Your task to perform on an android device: turn off picture-in-picture Image 0: 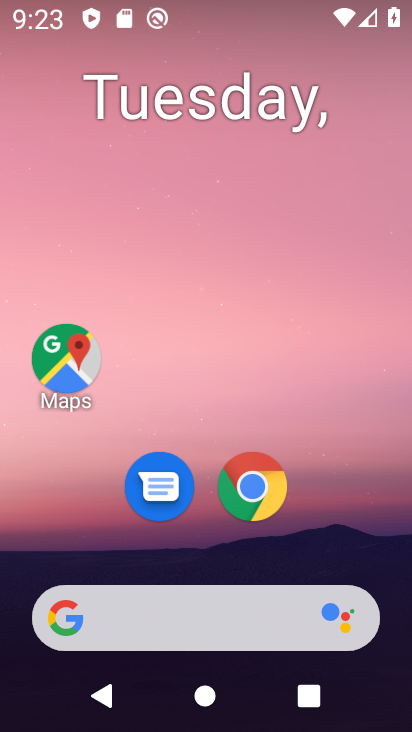
Step 0: press home button
Your task to perform on an android device: turn off picture-in-picture Image 1: 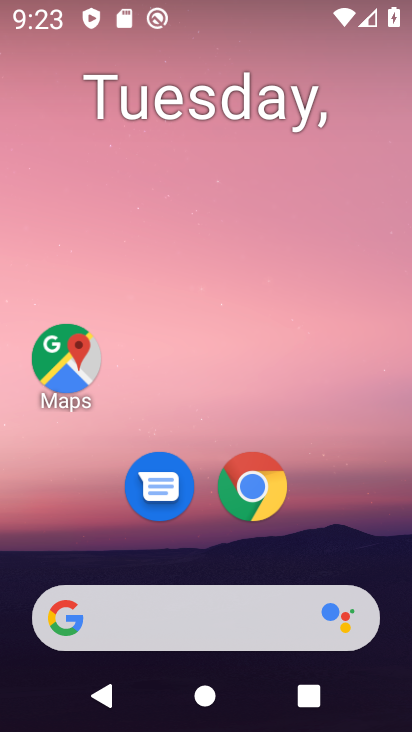
Step 1: drag from (365, 535) to (362, 164)
Your task to perform on an android device: turn off picture-in-picture Image 2: 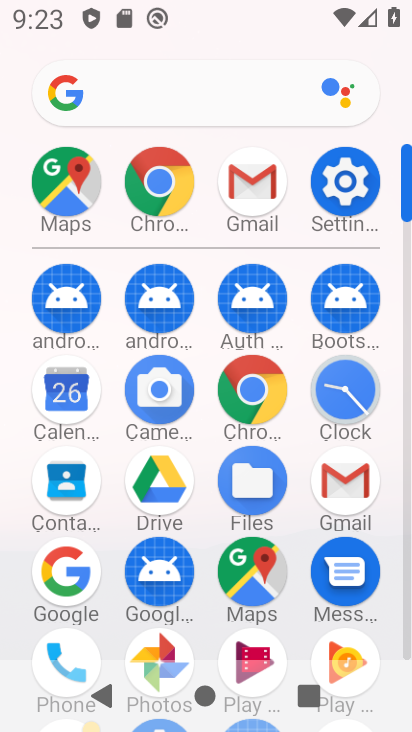
Step 2: click (335, 183)
Your task to perform on an android device: turn off picture-in-picture Image 3: 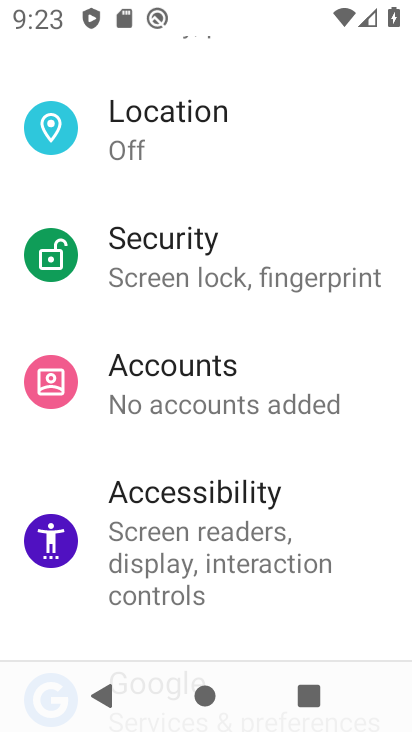
Step 3: drag from (335, 183) to (333, 217)
Your task to perform on an android device: turn off picture-in-picture Image 4: 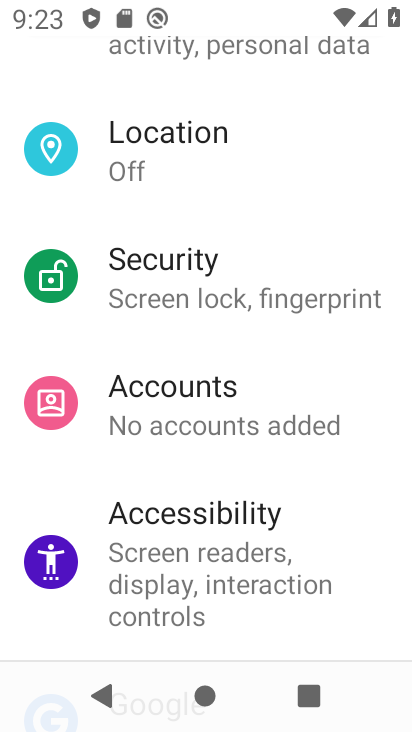
Step 4: drag from (324, 162) to (319, 208)
Your task to perform on an android device: turn off picture-in-picture Image 5: 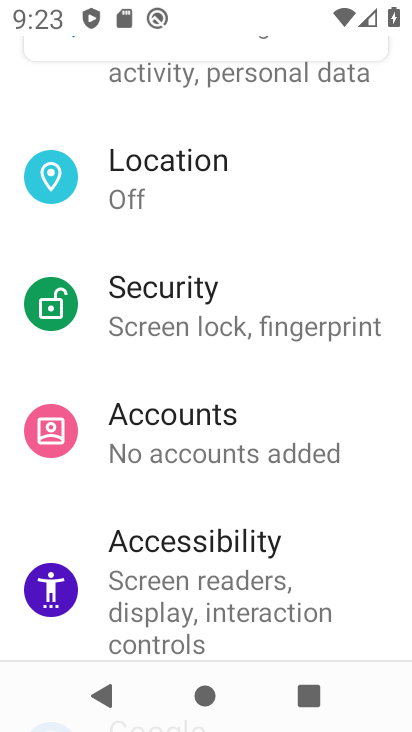
Step 5: drag from (315, 188) to (308, 233)
Your task to perform on an android device: turn off picture-in-picture Image 6: 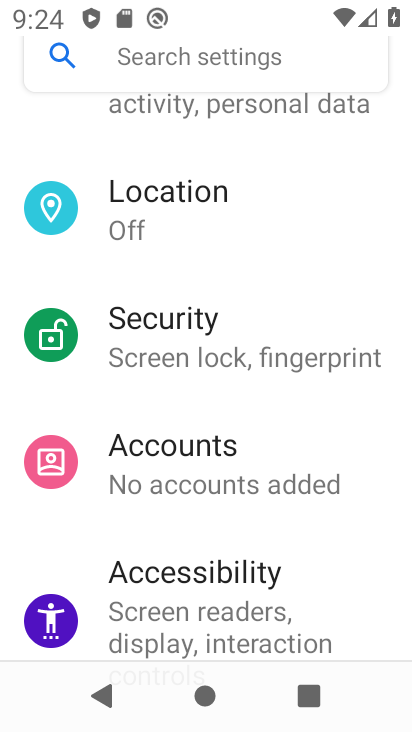
Step 6: drag from (285, 195) to (299, 285)
Your task to perform on an android device: turn off picture-in-picture Image 7: 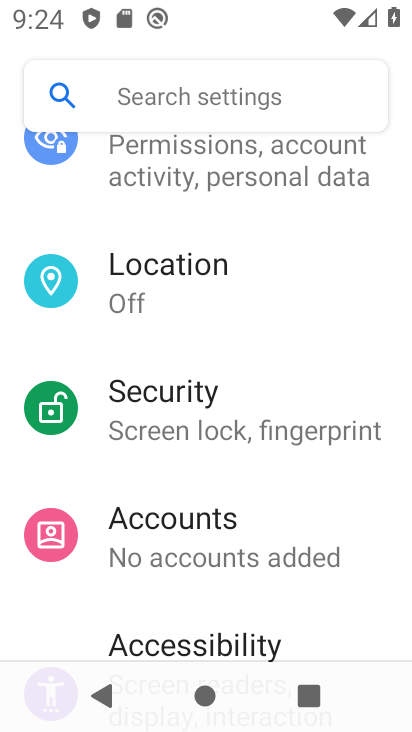
Step 7: drag from (344, 205) to (358, 325)
Your task to perform on an android device: turn off picture-in-picture Image 8: 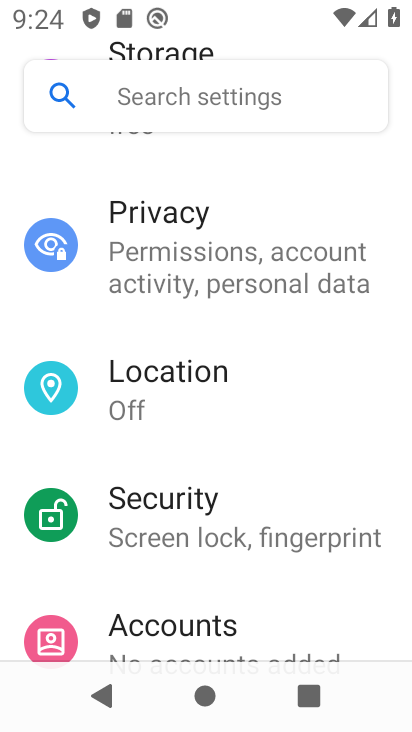
Step 8: drag from (378, 183) to (378, 374)
Your task to perform on an android device: turn off picture-in-picture Image 9: 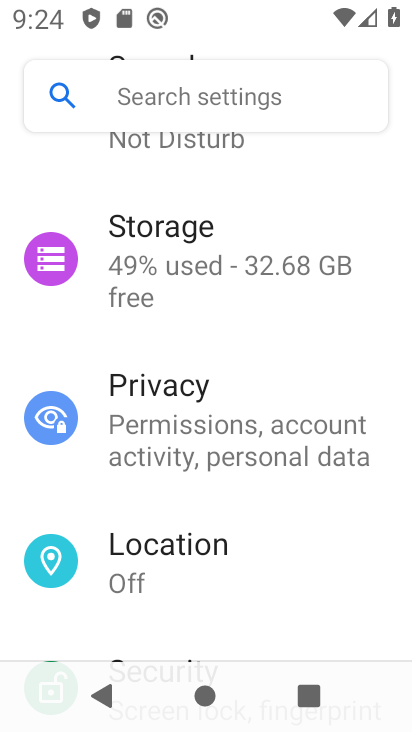
Step 9: drag from (369, 206) to (368, 387)
Your task to perform on an android device: turn off picture-in-picture Image 10: 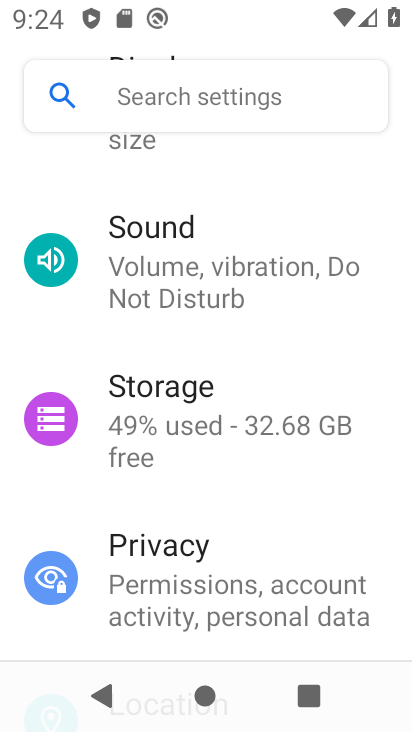
Step 10: drag from (366, 255) to (365, 358)
Your task to perform on an android device: turn off picture-in-picture Image 11: 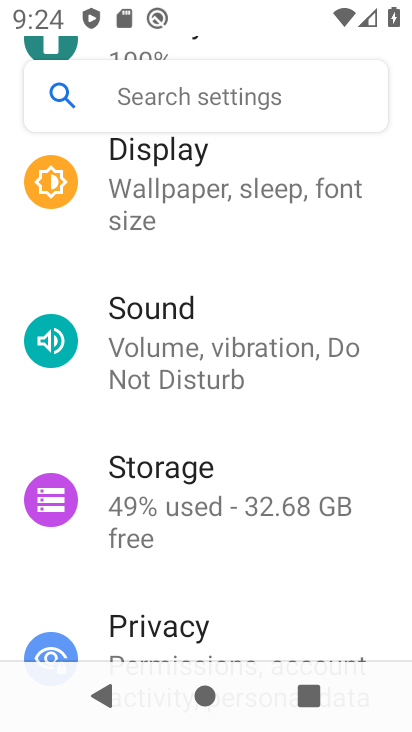
Step 11: drag from (361, 248) to (363, 360)
Your task to perform on an android device: turn off picture-in-picture Image 12: 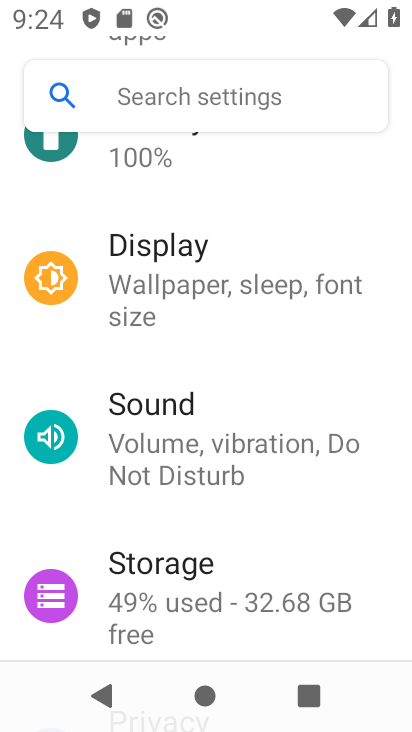
Step 12: drag from (366, 243) to (367, 340)
Your task to perform on an android device: turn off picture-in-picture Image 13: 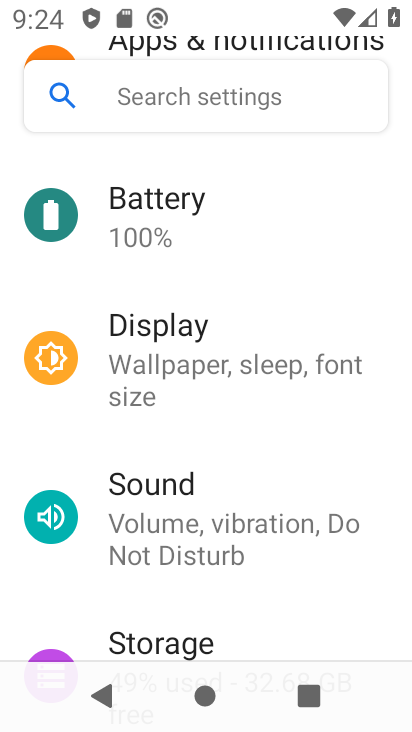
Step 13: drag from (366, 203) to (362, 392)
Your task to perform on an android device: turn off picture-in-picture Image 14: 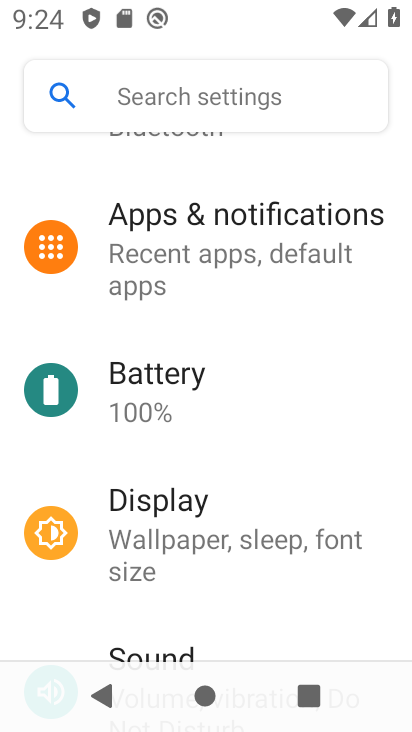
Step 14: drag from (374, 291) to (364, 393)
Your task to perform on an android device: turn off picture-in-picture Image 15: 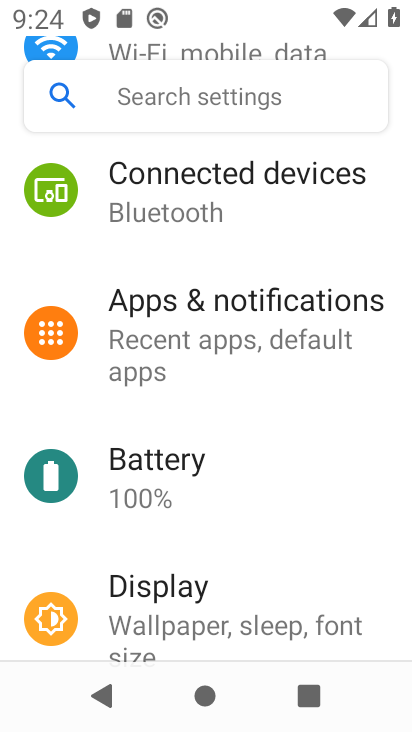
Step 15: click (367, 295)
Your task to perform on an android device: turn off picture-in-picture Image 16: 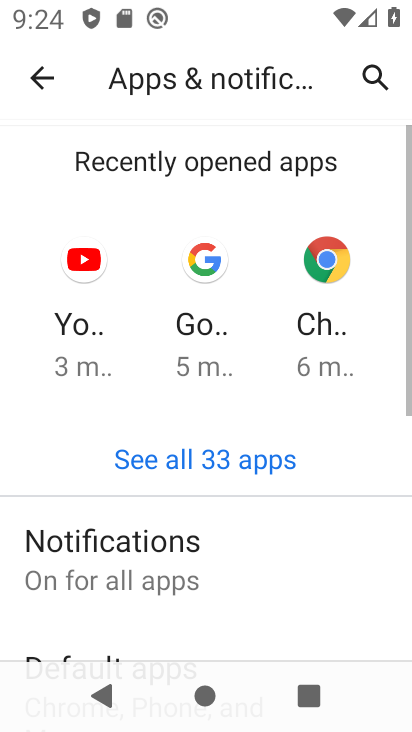
Step 16: drag from (324, 503) to (330, 417)
Your task to perform on an android device: turn off picture-in-picture Image 17: 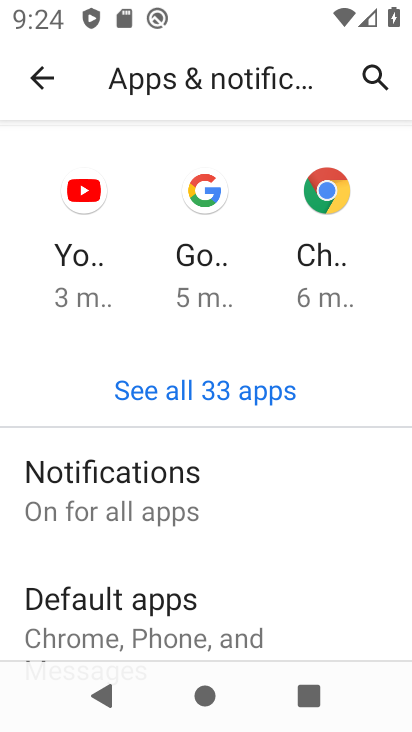
Step 17: drag from (332, 529) to (336, 471)
Your task to perform on an android device: turn off picture-in-picture Image 18: 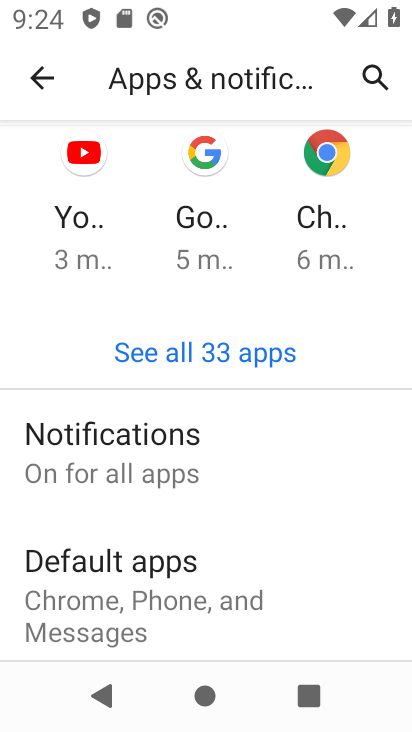
Step 18: drag from (346, 540) to (353, 349)
Your task to perform on an android device: turn off picture-in-picture Image 19: 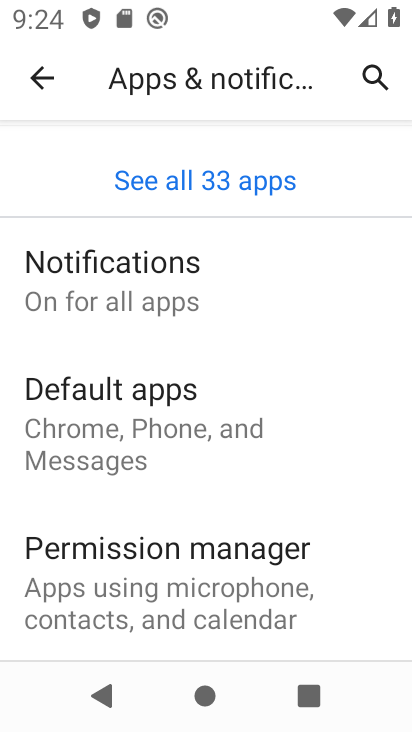
Step 19: drag from (362, 522) to (357, 347)
Your task to perform on an android device: turn off picture-in-picture Image 20: 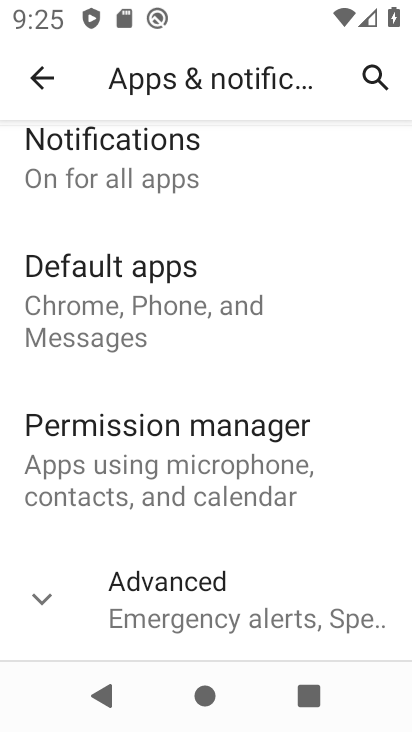
Step 20: click (176, 591)
Your task to perform on an android device: turn off picture-in-picture Image 21: 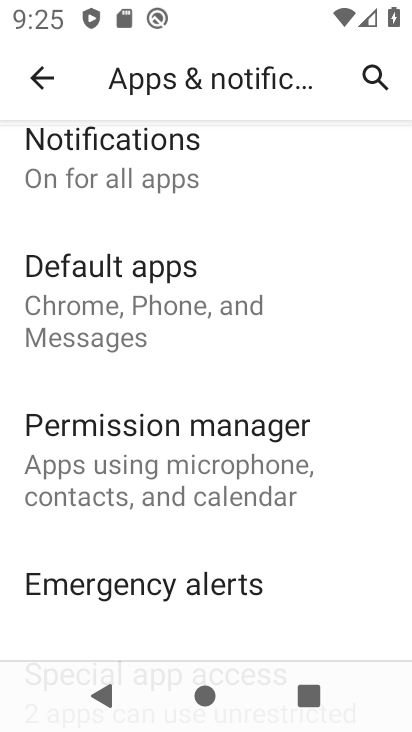
Step 21: drag from (346, 572) to (343, 442)
Your task to perform on an android device: turn off picture-in-picture Image 22: 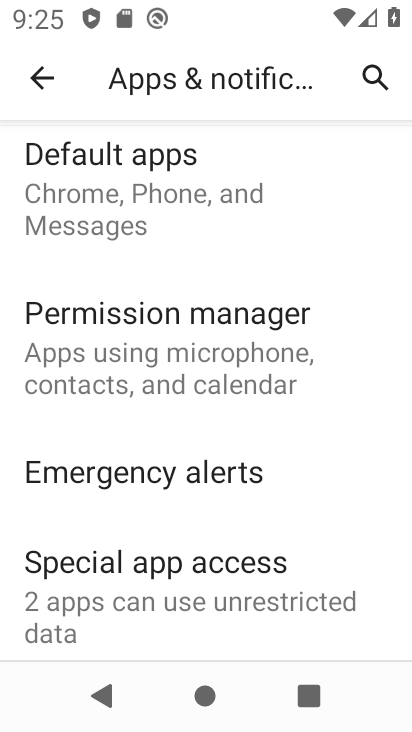
Step 22: click (288, 575)
Your task to perform on an android device: turn off picture-in-picture Image 23: 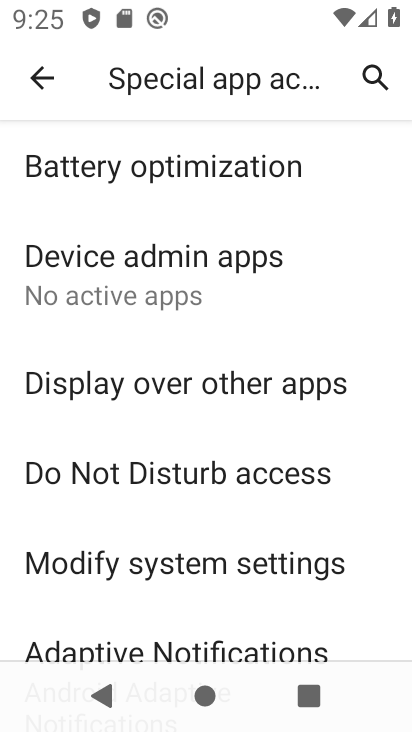
Step 23: drag from (315, 599) to (316, 541)
Your task to perform on an android device: turn off picture-in-picture Image 24: 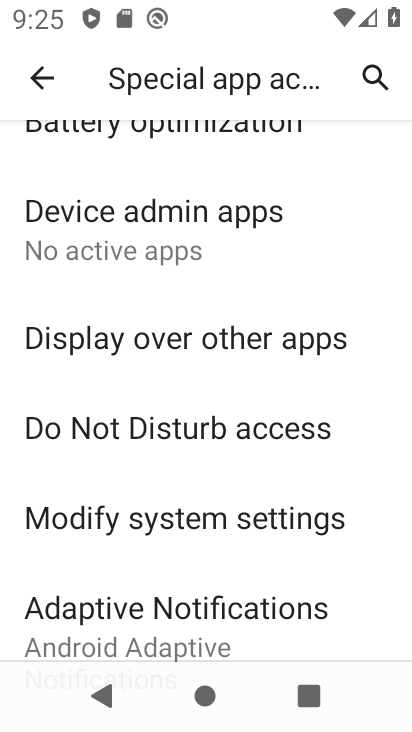
Step 24: drag from (331, 555) to (321, 457)
Your task to perform on an android device: turn off picture-in-picture Image 25: 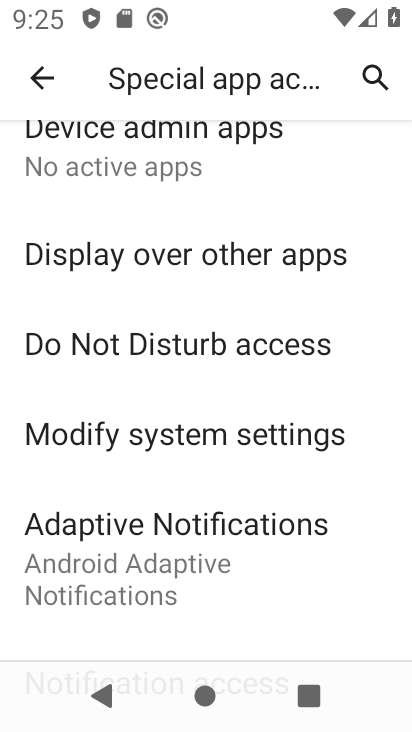
Step 25: drag from (325, 591) to (342, 464)
Your task to perform on an android device: turn off picture-in-picture Image 26: 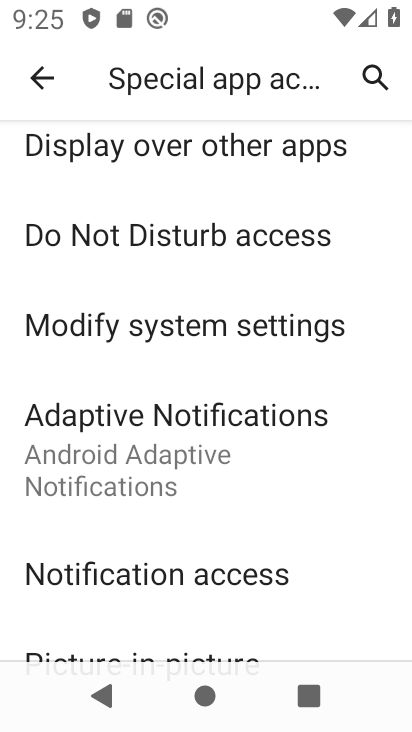
Step 26: drag from (334, 578) to (339, 404)
Your task to perform on an android device: turn off picture-in-picture Image 27: 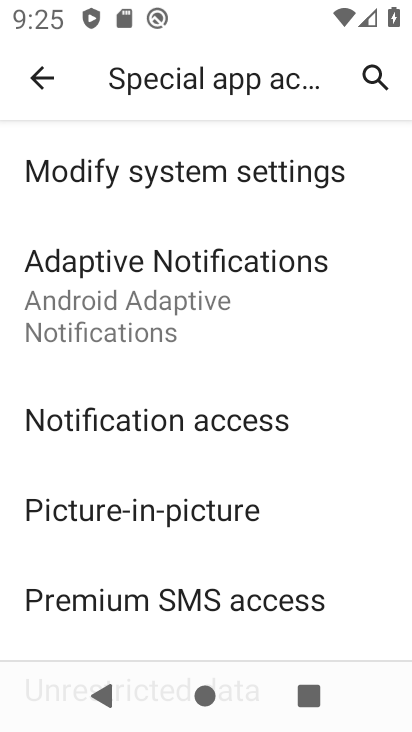
Step 27: click (290, 525)
Your task to perform on an android device: turn off picture-in-picture Image 28: 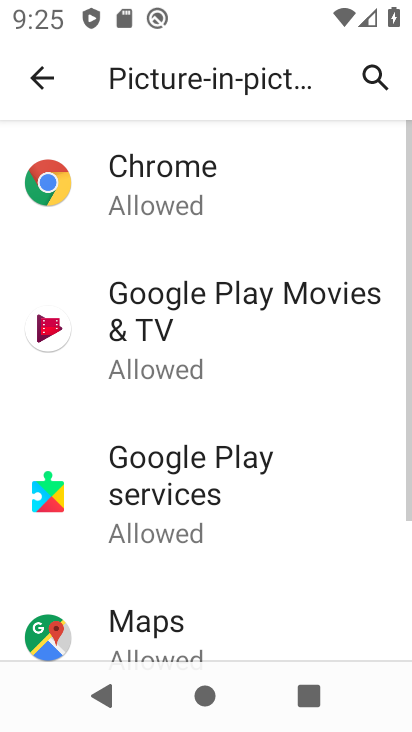
Step 28: drag from (290, 568) to (305, 487)
Your task to perform on an android device: turn off picture-in-picture Image 29: 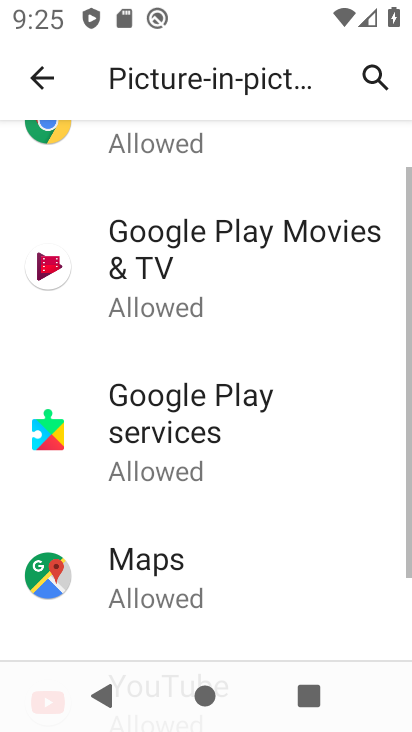
Step 29: drag from (307, 590) to (318, 470)
Your task to perform on an android device: turn off picture-in-picture Image 30: 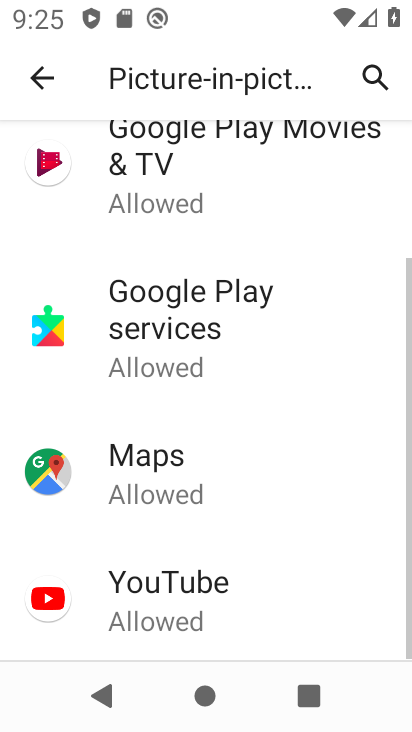
Step 30: click (280, 593)
Your task to perform on an android device: turn off picture-in-picture Image 31: 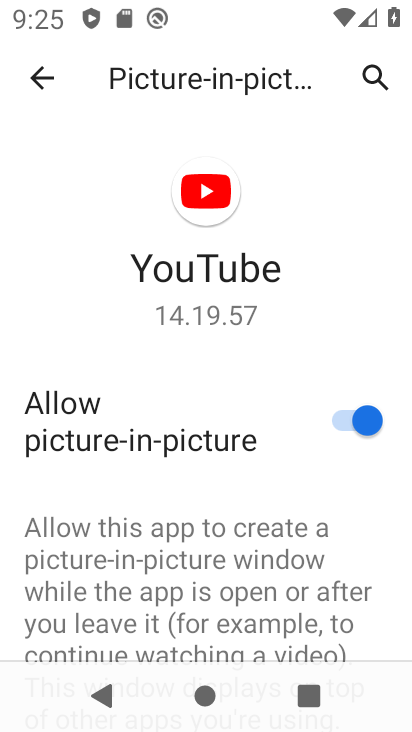
Step 31: click (348, 435)
Your task to perform on an android device: turn off picture-in-picture Image 32: 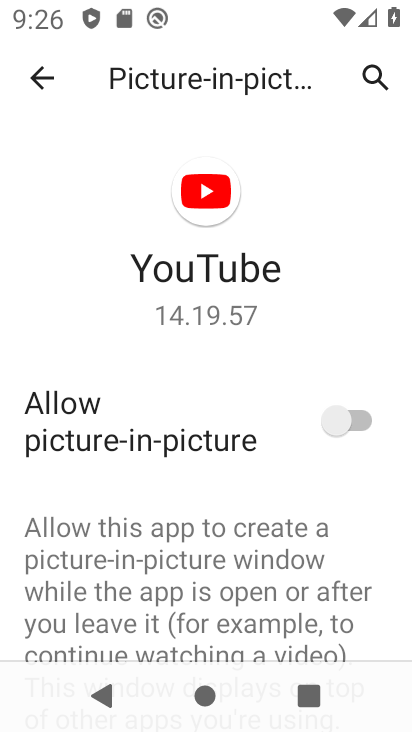
Step 32: task complete